Your task to perform on an android device: change notification settings in the gmail app Image 0: 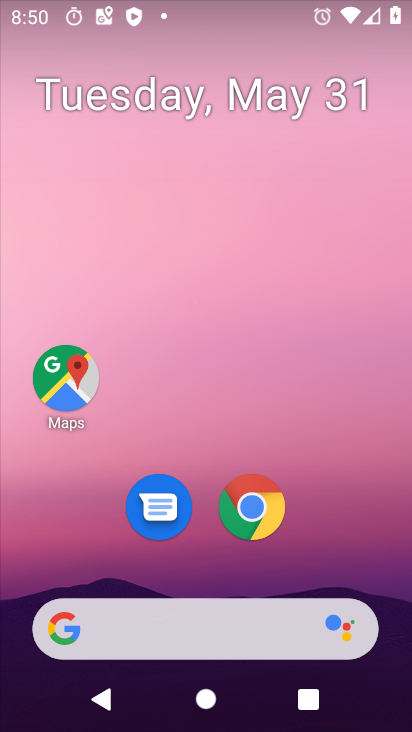
Step 0: drag from (377, 580) to (237, 0)
Your task to perform on an android device: change notification settings in the gmail app Image 1: 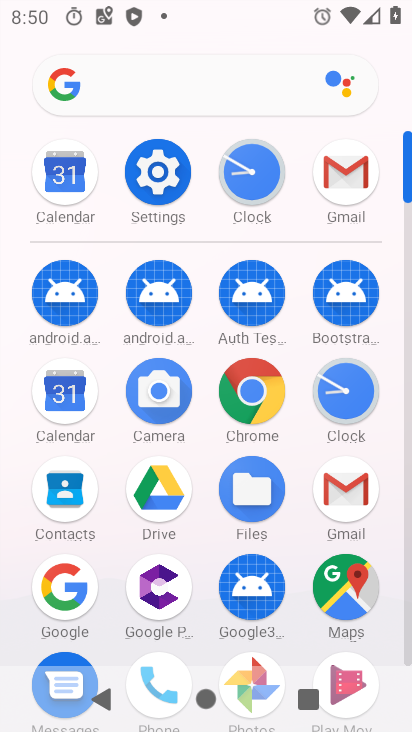
Step 1: click (337, 182)
Your task to perform on an android device: change notification settings in the gmail app Image 2: 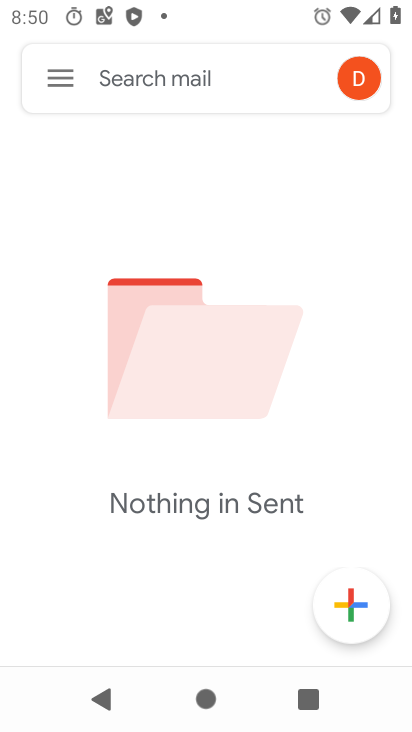
Step 2: click (62, 84)
Your task to perform on an android device: change notification settings in the gmail app Image 3: 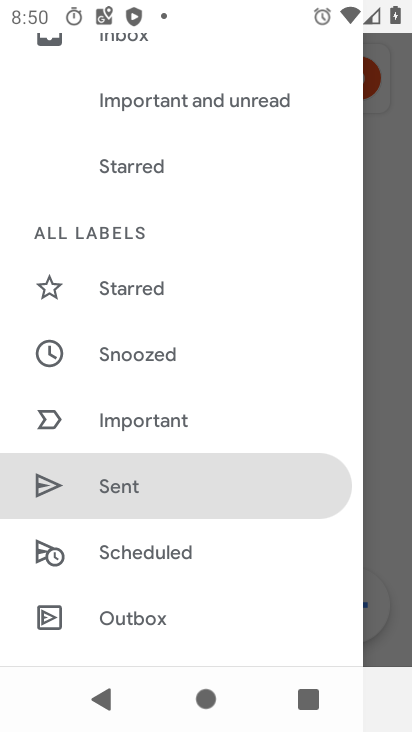
Step 3: drag from (216, 478) to (184, 302)
Your task to perform on an android device: change notification settings in the gmail app Image 4: 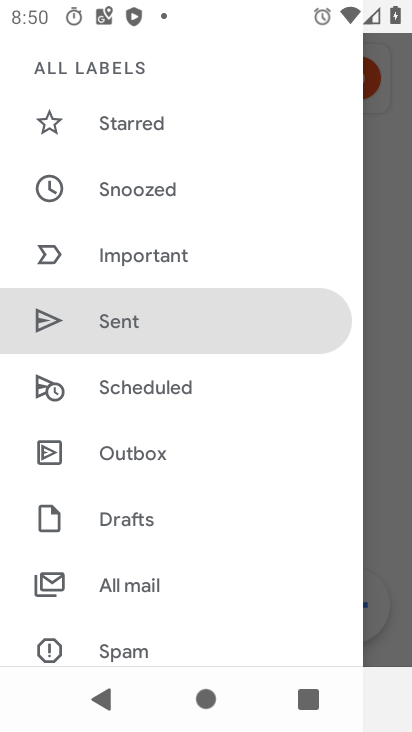
Step 4: drag from (183, 405) to (168, 318)
Your task to perform on an android device: change notification settings in the gmail app Image 5: 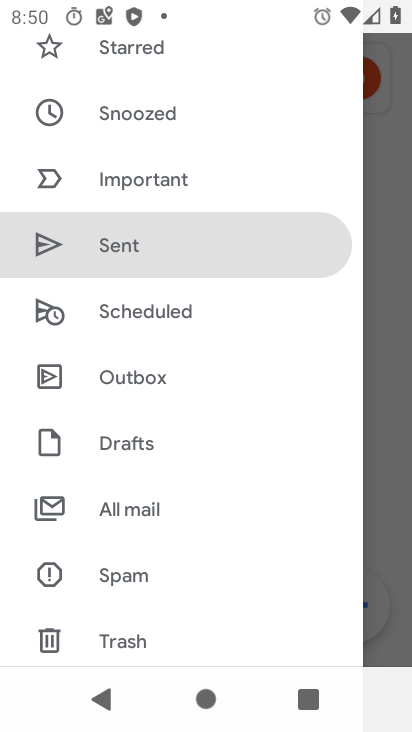
Step 5: drag from (187, 600) to (167, 96)
Your task to perform on an android device: change notification settings in the gmail app Image 6: 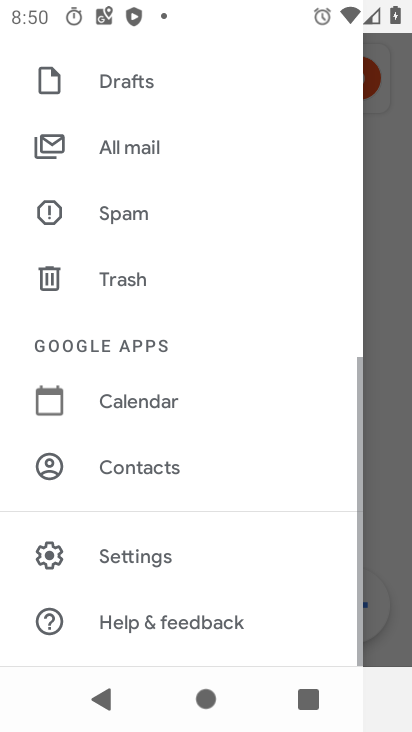
Step 6: click (120, 560)
Your task to perform on an android device: change notification settings in the gmail app Image 7: 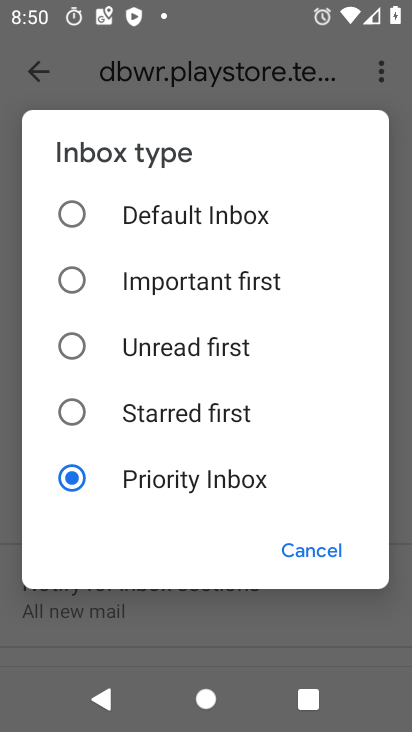
Step 7: click (328, 560)
Your task to perform on an android device: change notification settings in the gmail app Image 8: 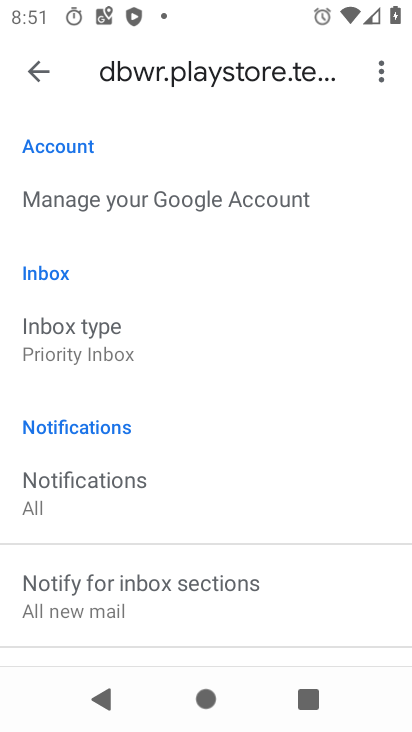
Step 8: click (57, 74)
Your task to perform on an android device: change notification settings in the gmail app Image 9: 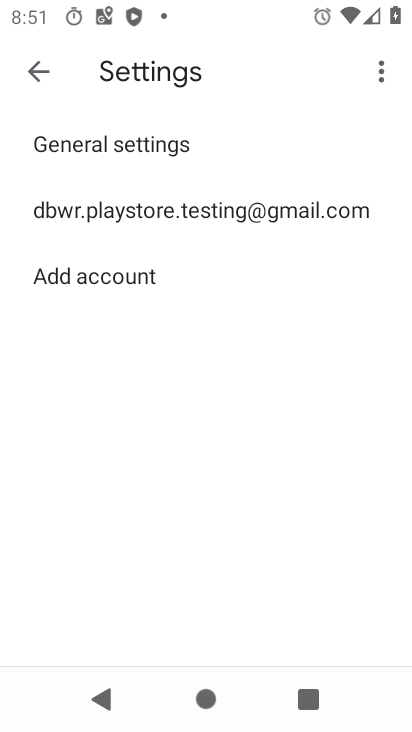
Step 9: click (62, 152)
Your task to perform on an android device: change notification settings in the gmail app Image 10: 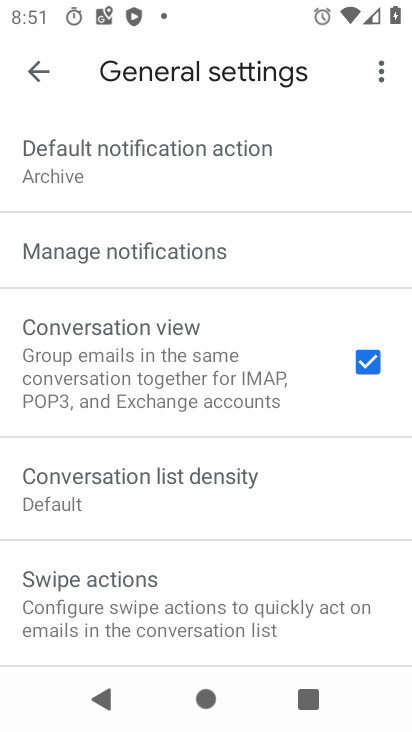
Step 10: click (86, 259)
Your task to perform on an android device: change notification settings in the gmail app Image 11: 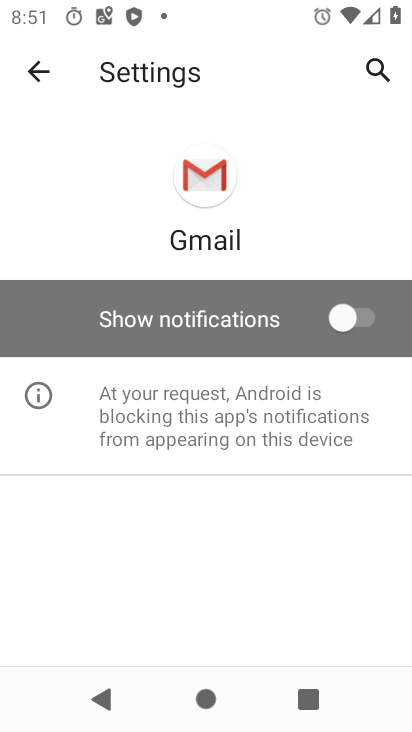
Step 11: click (356, 328)
Your task to perform on an android device: change notification settings in the gmail app Image 12: 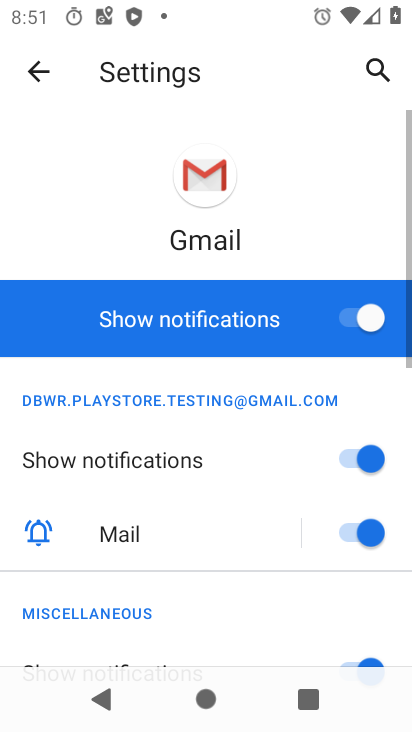
Step 12: task complete